Your task to perform on an android device: Clear all items from cart on newegg.com. Search for "dell xps" on newegg.com, select the first entry, and add it to the cart. Image 0: 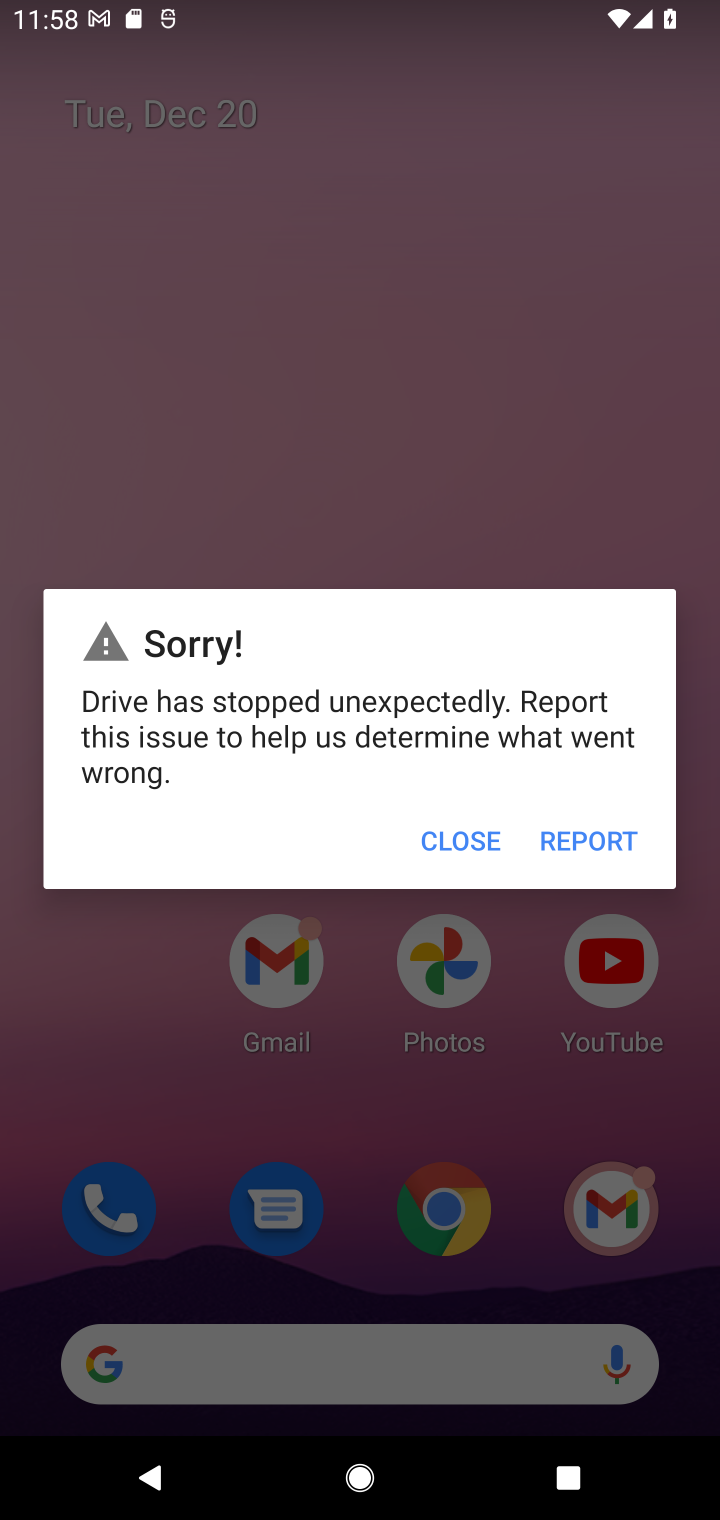
Step 0: press home button
Your task to perform on an android device: Clear all items from cart on newegg.com. Search for "dell xps" on newegg.com, select the first entry, and add it to the cart. Image 1: 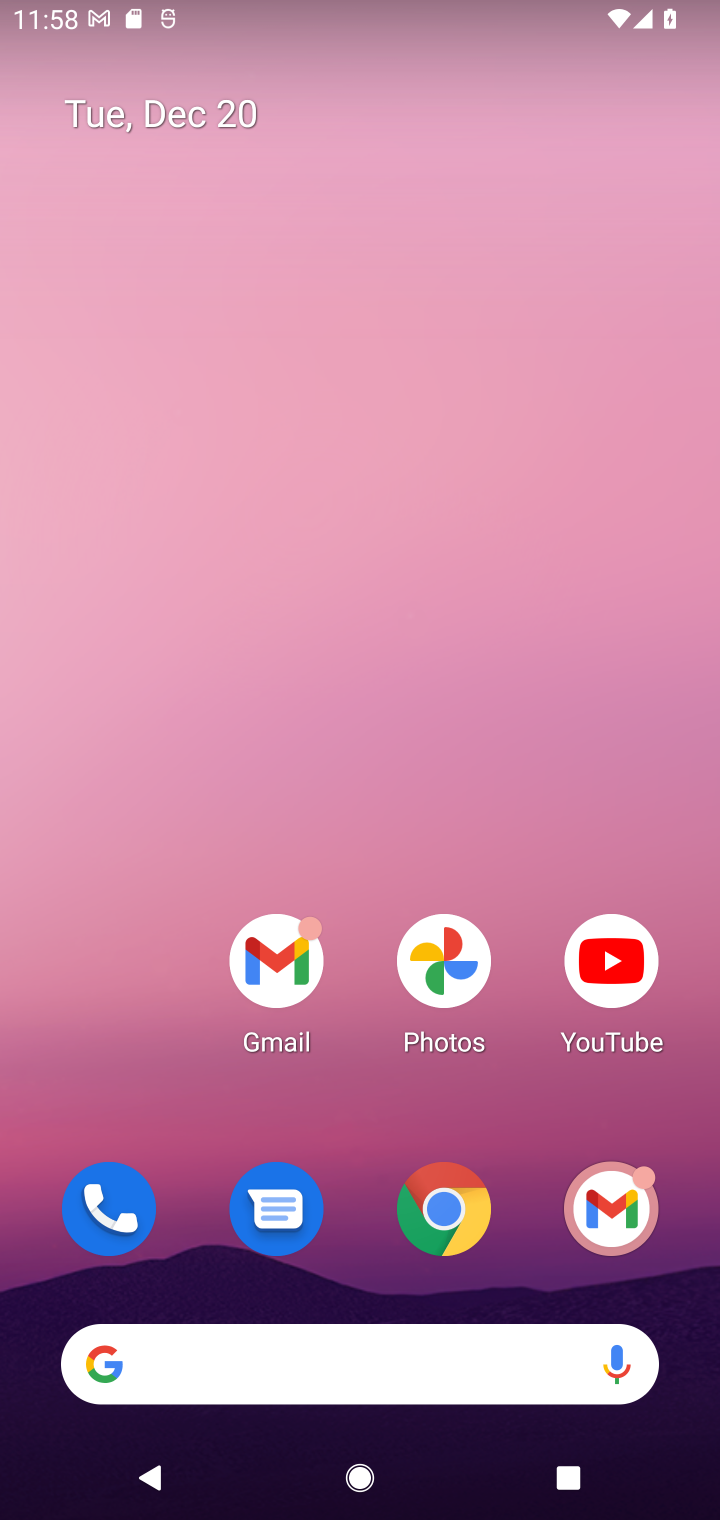
Step 1: click (421, 1217)
Your task to perform on an android device: Clear all items from cart on newegg.com. Search for "dell xps" on newegg.com, select the first entry, and add it to the cart. Image 2: 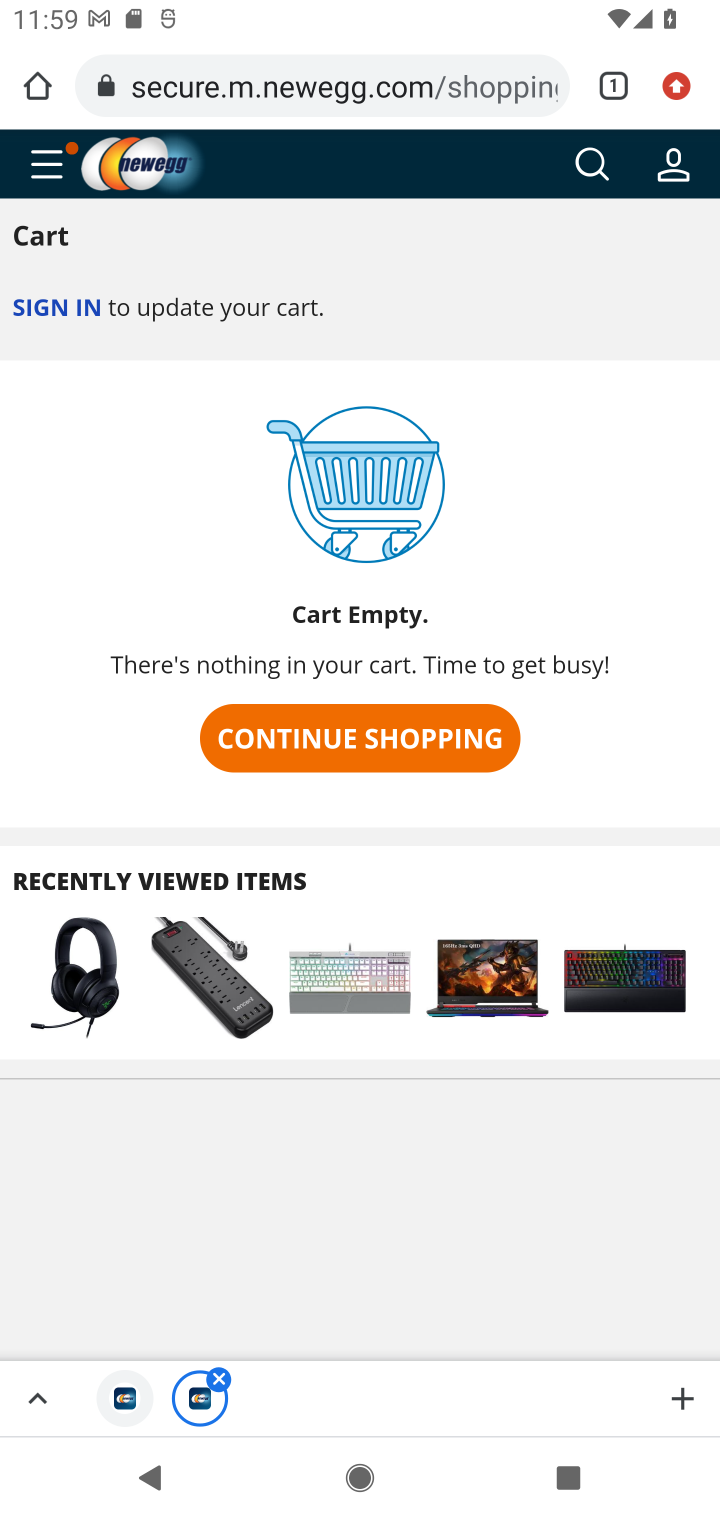
Step 2: click (593, 160)
Your task to perform on an android device: Clear all items from cart on newegg.com. Search for "dell xps" on newegg.com, select the first entry, and add it to the cart. Image 3: 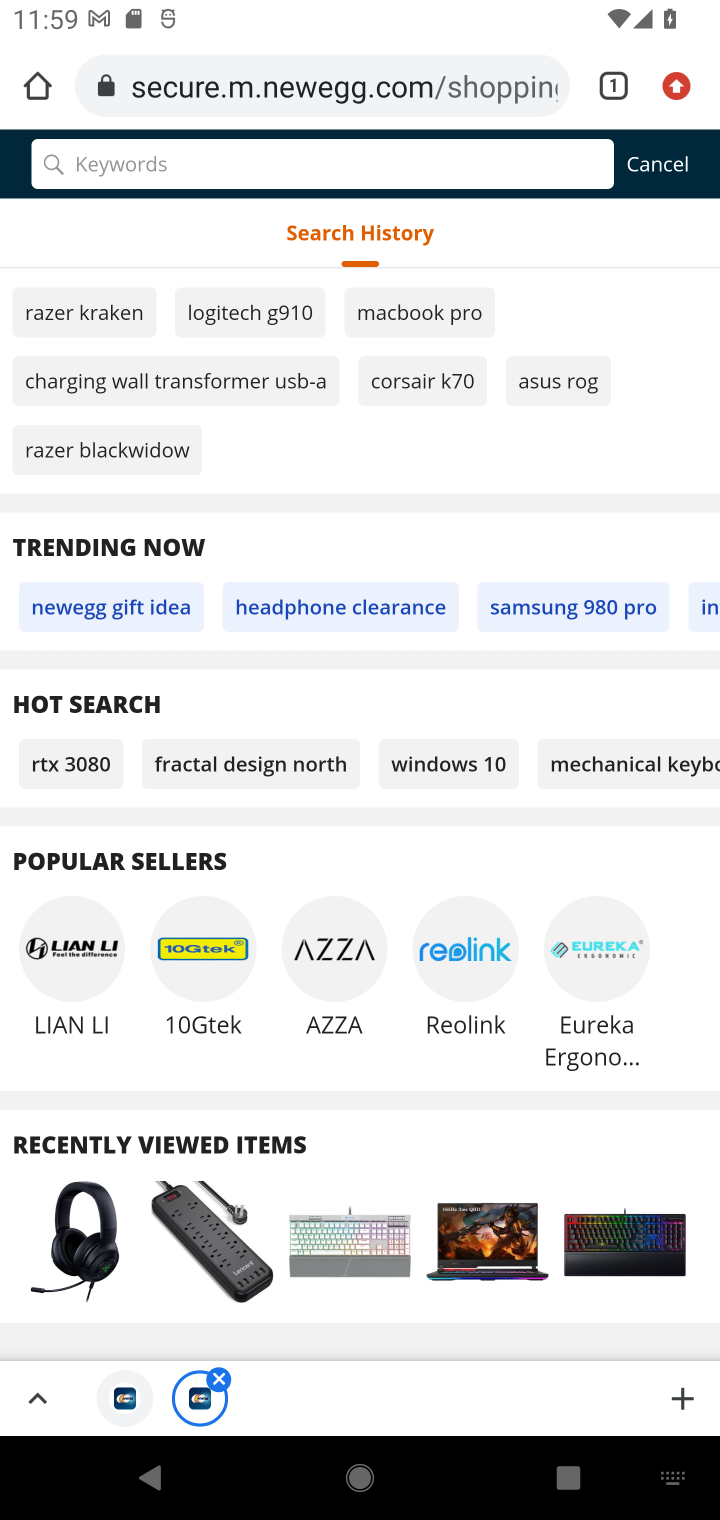
Step 3: type "dell xps"
Your task to perform on an android device: Clear all items from cart on newegg.com. Search for "dell xps" on newegg.com, select the first entry, and add it to the cart. Image 4: 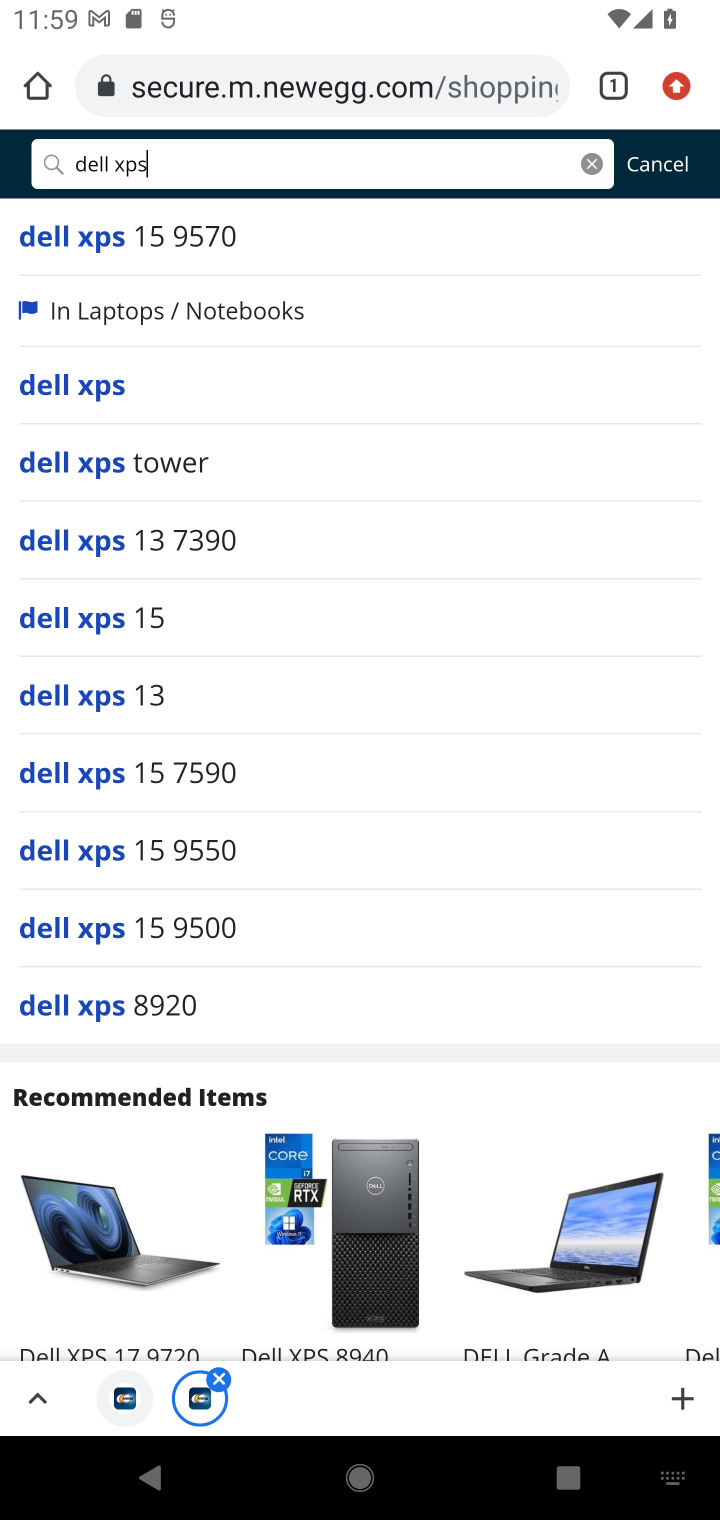
Step 4: click (71, 399)
Your task to perform on an android device: Clear all items from cart on newegg.com. Search for "dell xps" on newegg.com, select the first entry, and add it to the cart. Image 5: 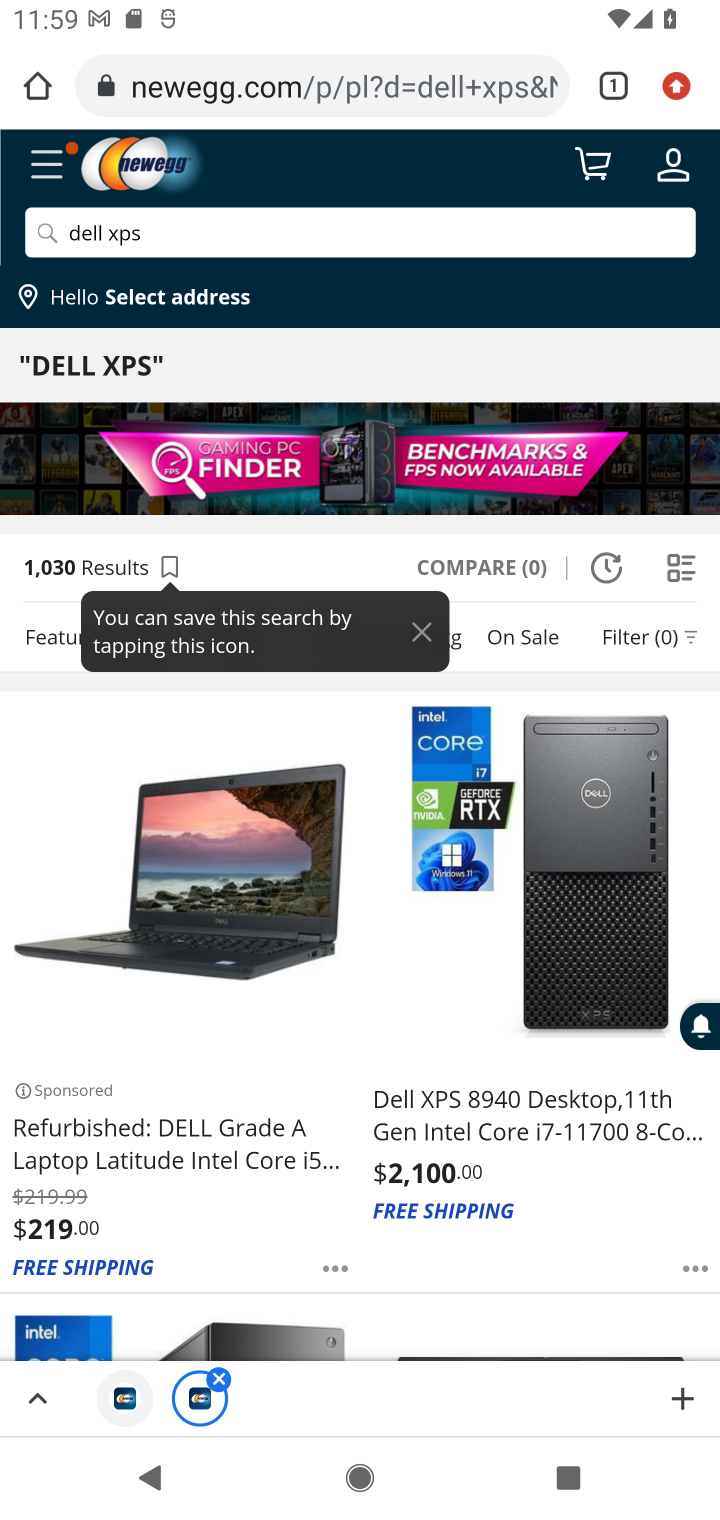
Step 5: task complete